Your task to perform on an android device: empty trash in google photos Image 0: 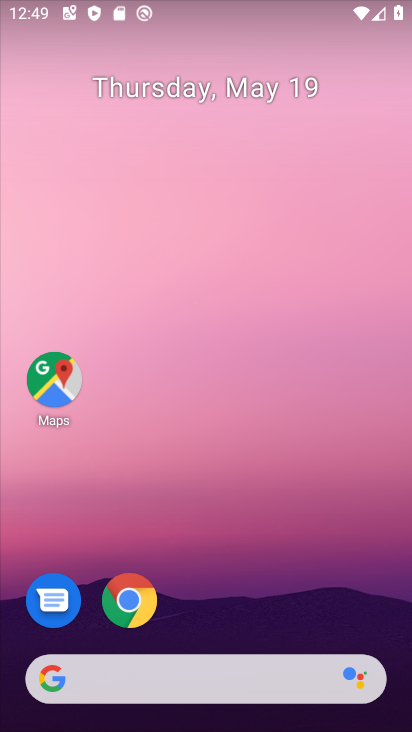
Step 0: drag from (220, 643) to (246, 286)
Your task to perform on an android device: empty trash in google photos Image 1: 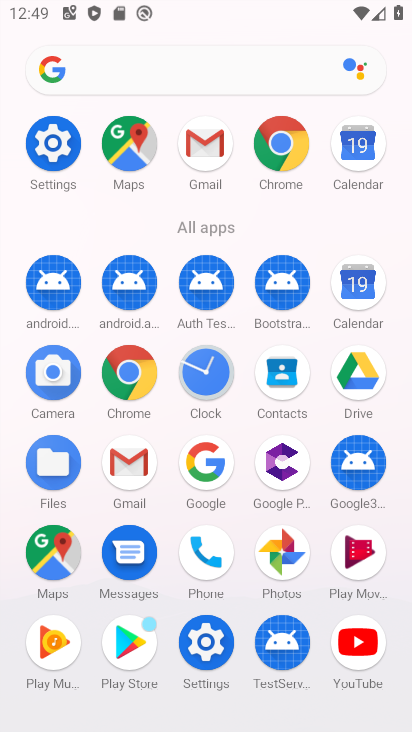
Step 1: click (277, 529)
Your task to perform on an android device: empty trash in google photos Image 2: 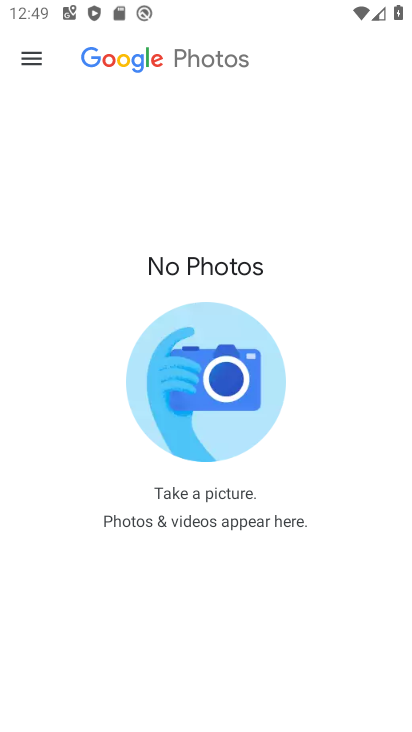
Step 2: task complete